Your task to perform on an android device: delete a single message in the gmail app Image 0: 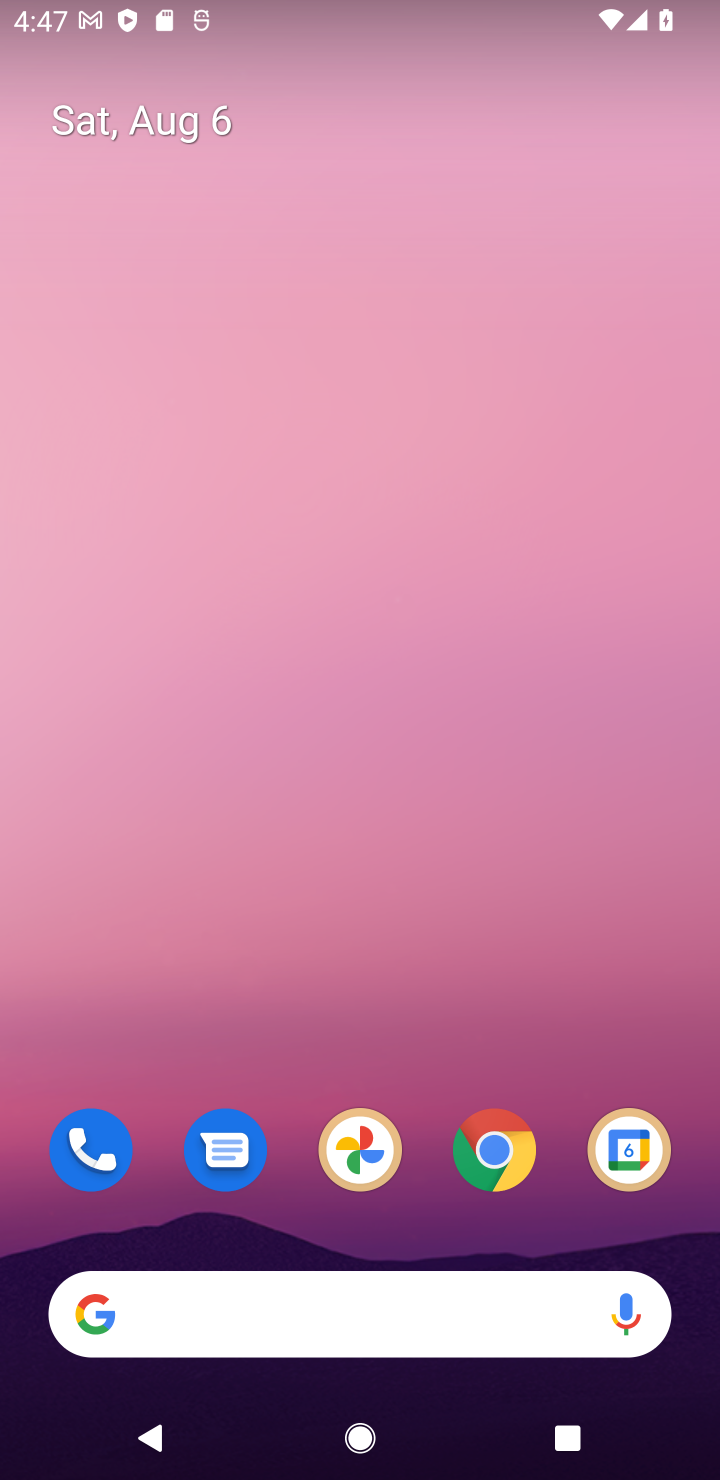
Step 0: drag from (439, 1055) to (562, 67)
Your task to perform on an android device: delete a single message in the gmail app Image 1: 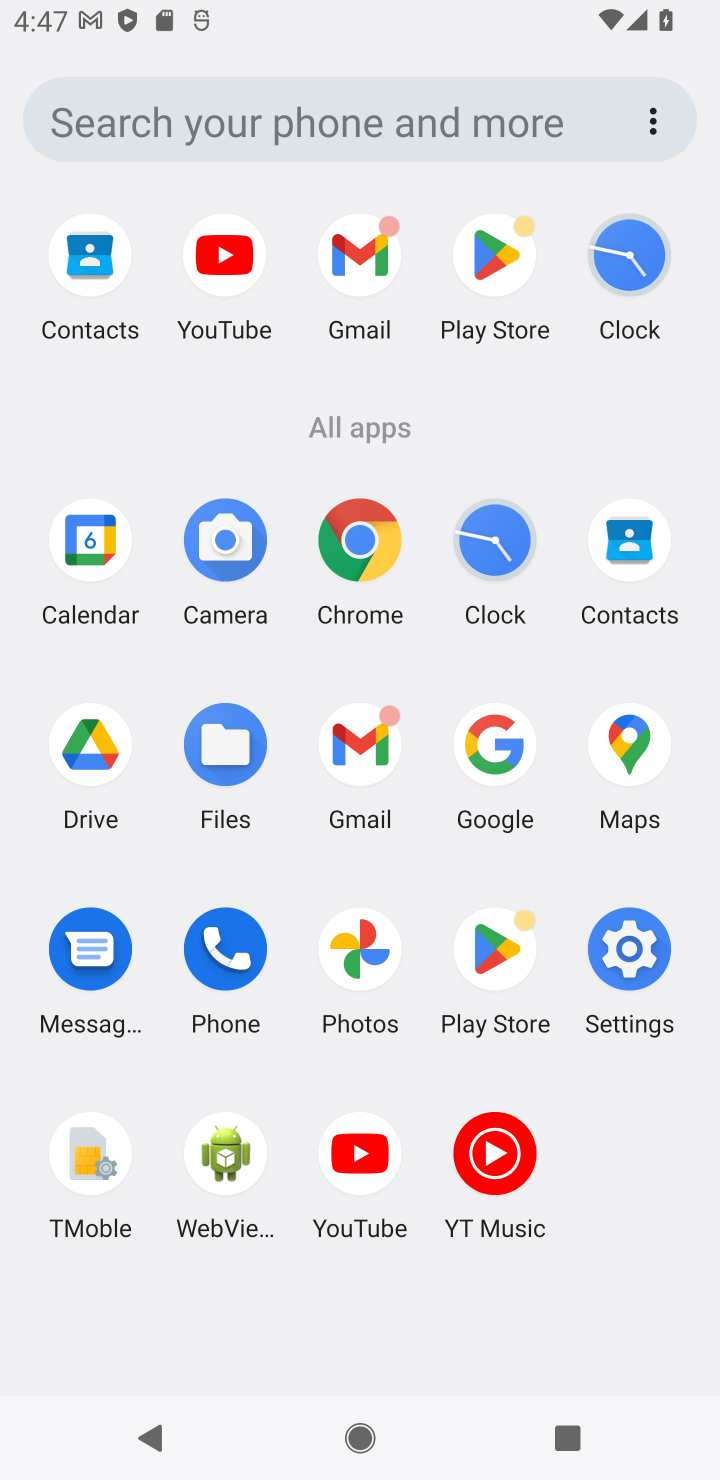
Step 1: click (350, 263)
Your task to perform on an android device: delete a single message in the gmail app Image 2: 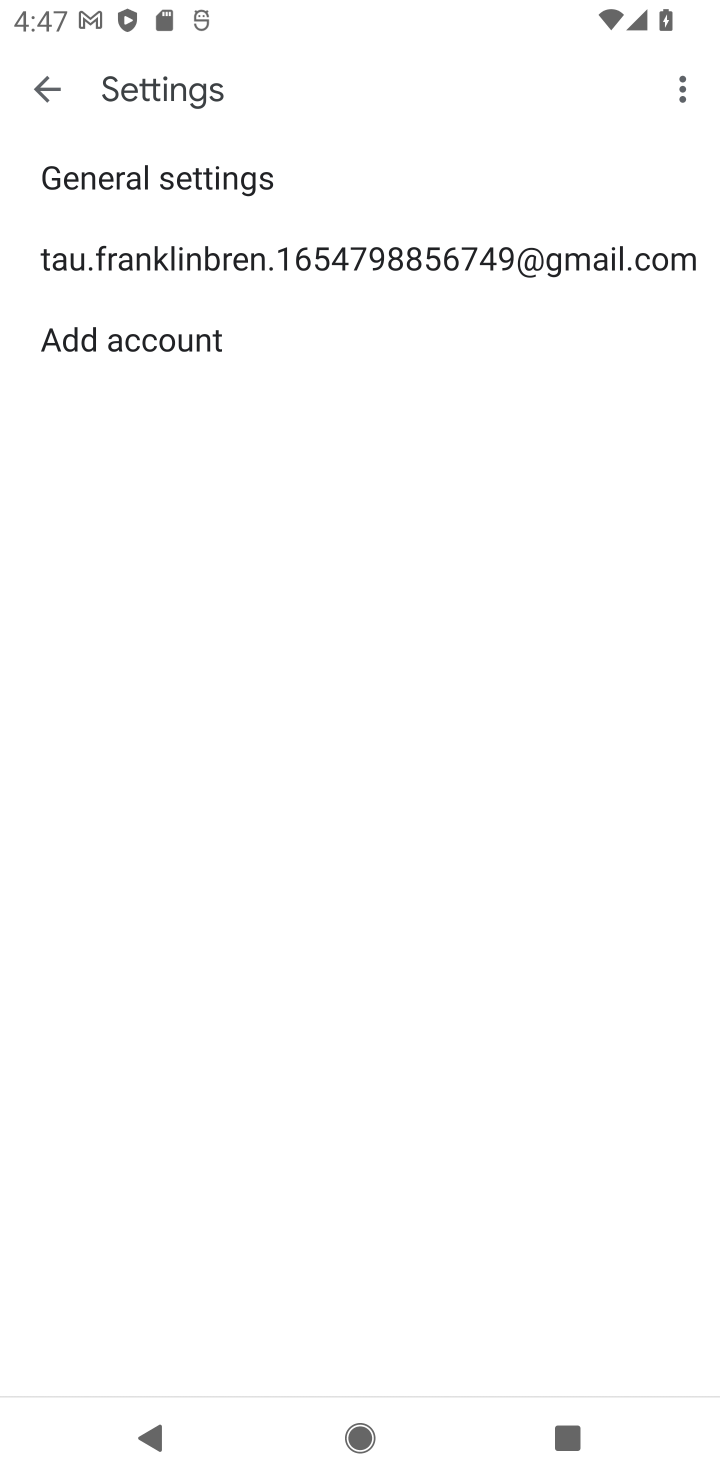
Step 2: click (46, 84)
Your task to perform on an android device: delete a single message in the gmail app Image 3: 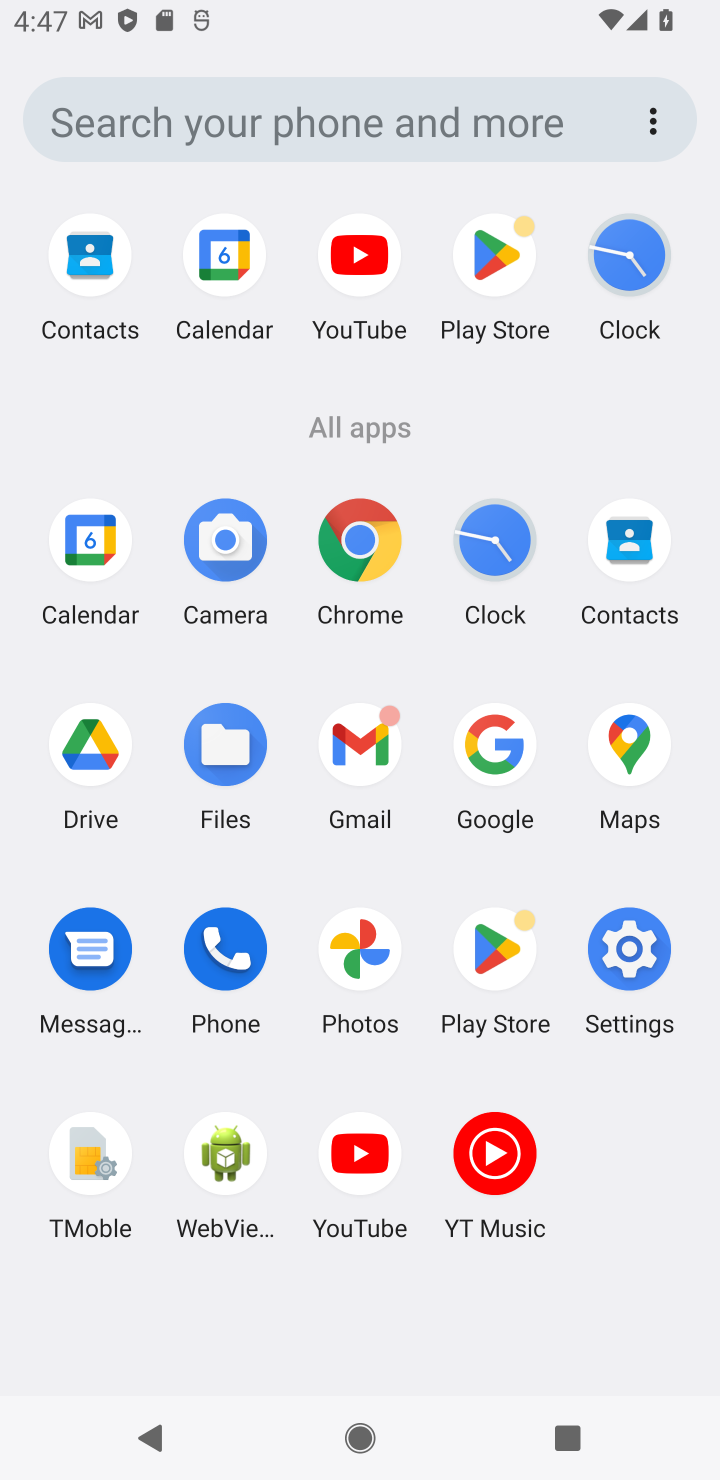
Step 3: click (350, 759)
Your task to perform on an android device: delete a single message in the gmail app Image 4: 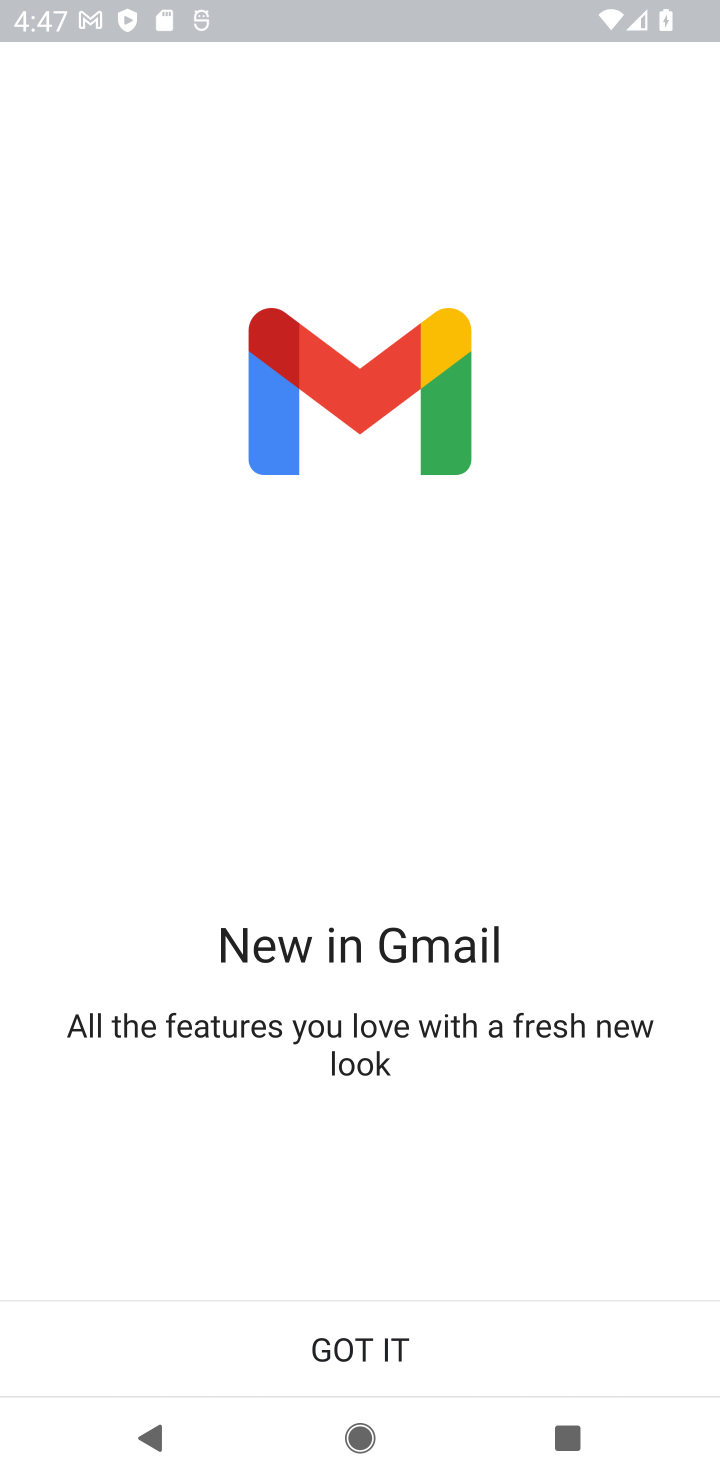
Step 4: click (325, 1334)
Your task to perform on an android device: delete a single message in the gmail app Image 5: 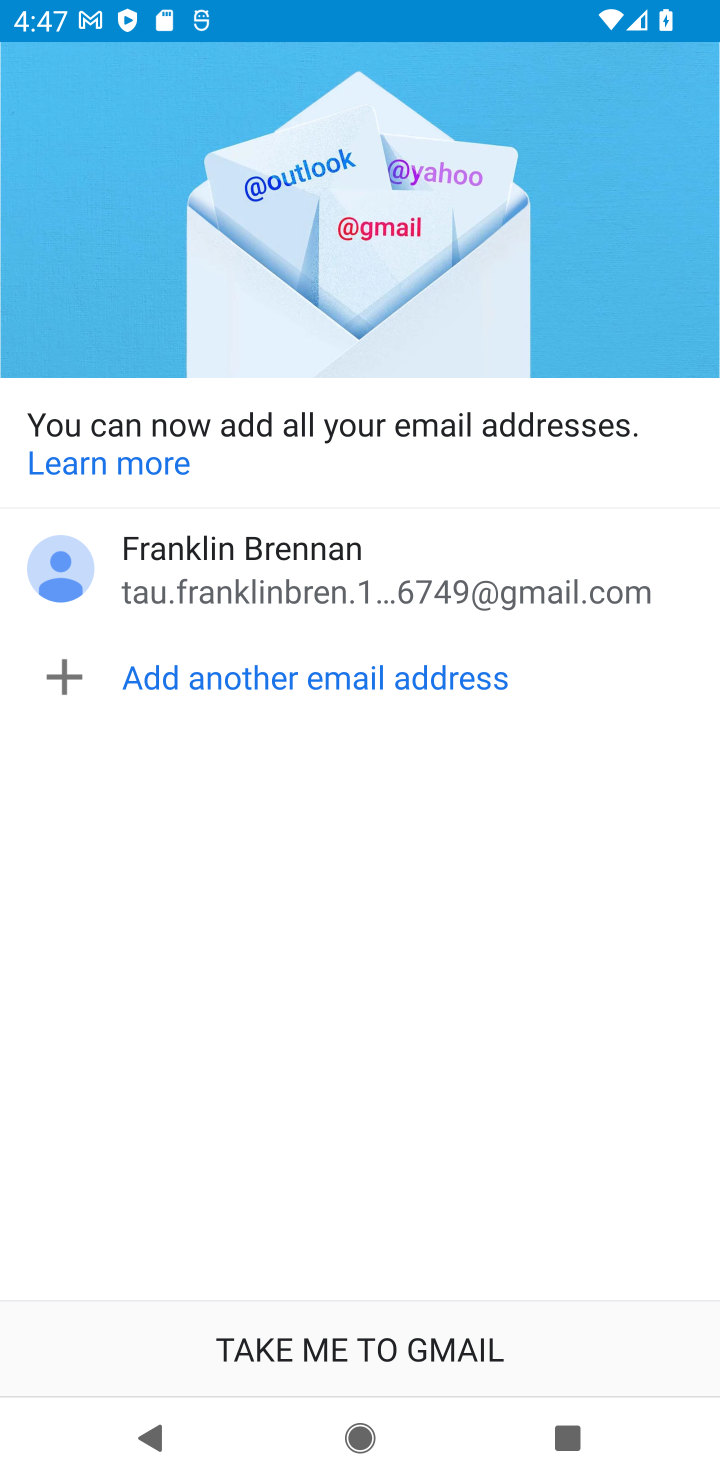
Step 5: click (325, 1334)
Your task to perform on an android device: delete a single message in the gmail app Image 6: 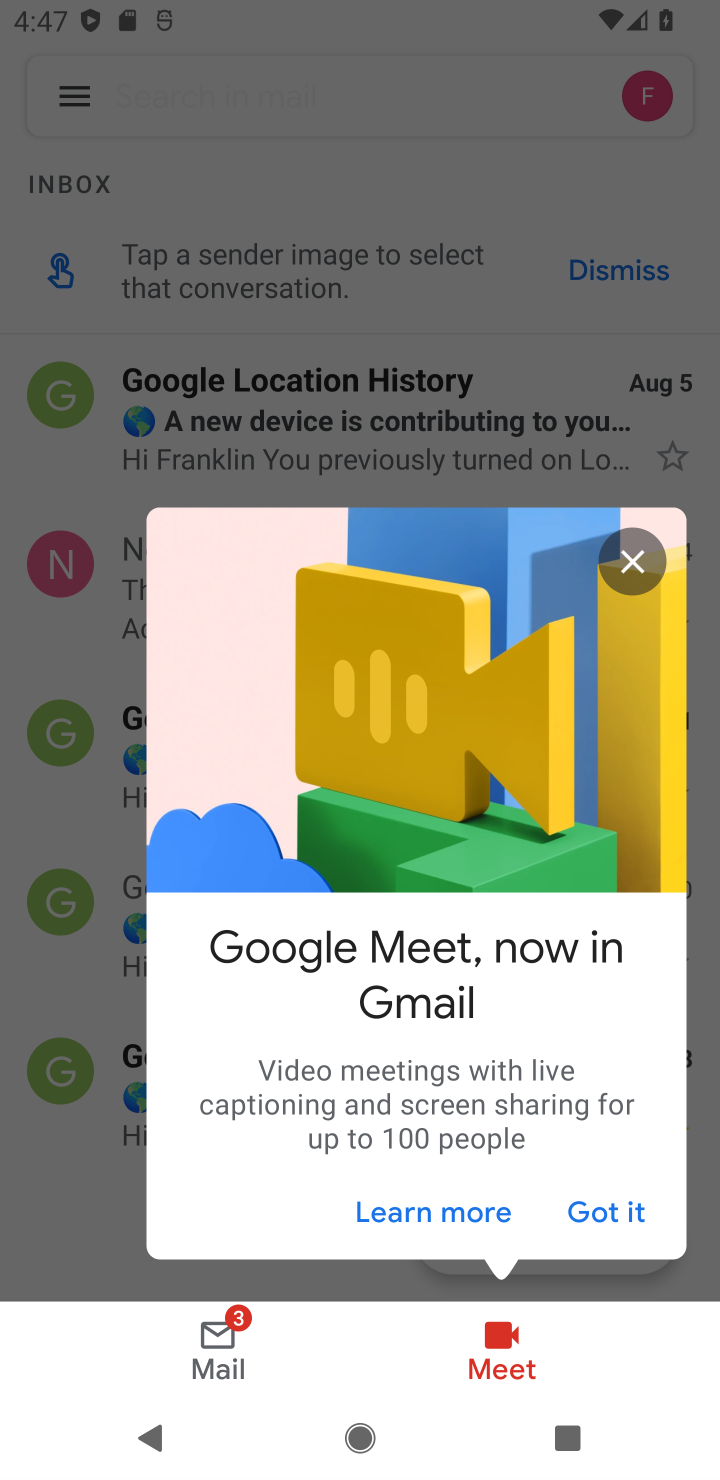
Step 6: click (593, 1216)
Your task to perform on an android device: delete a single message in the gmail app Image 7: 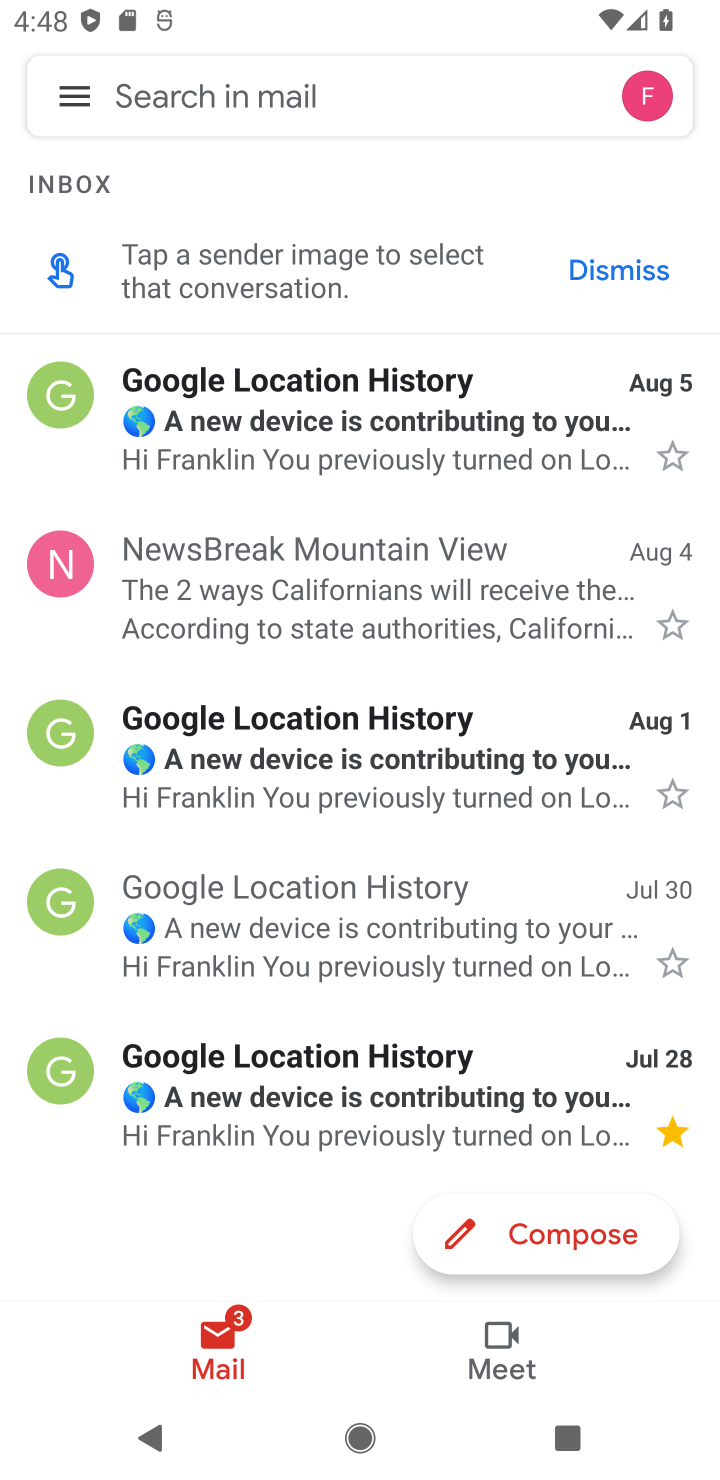
Step 7: click (74, 374)
Your task to perform on an android device: delete a single message in the gmail app Image 8: 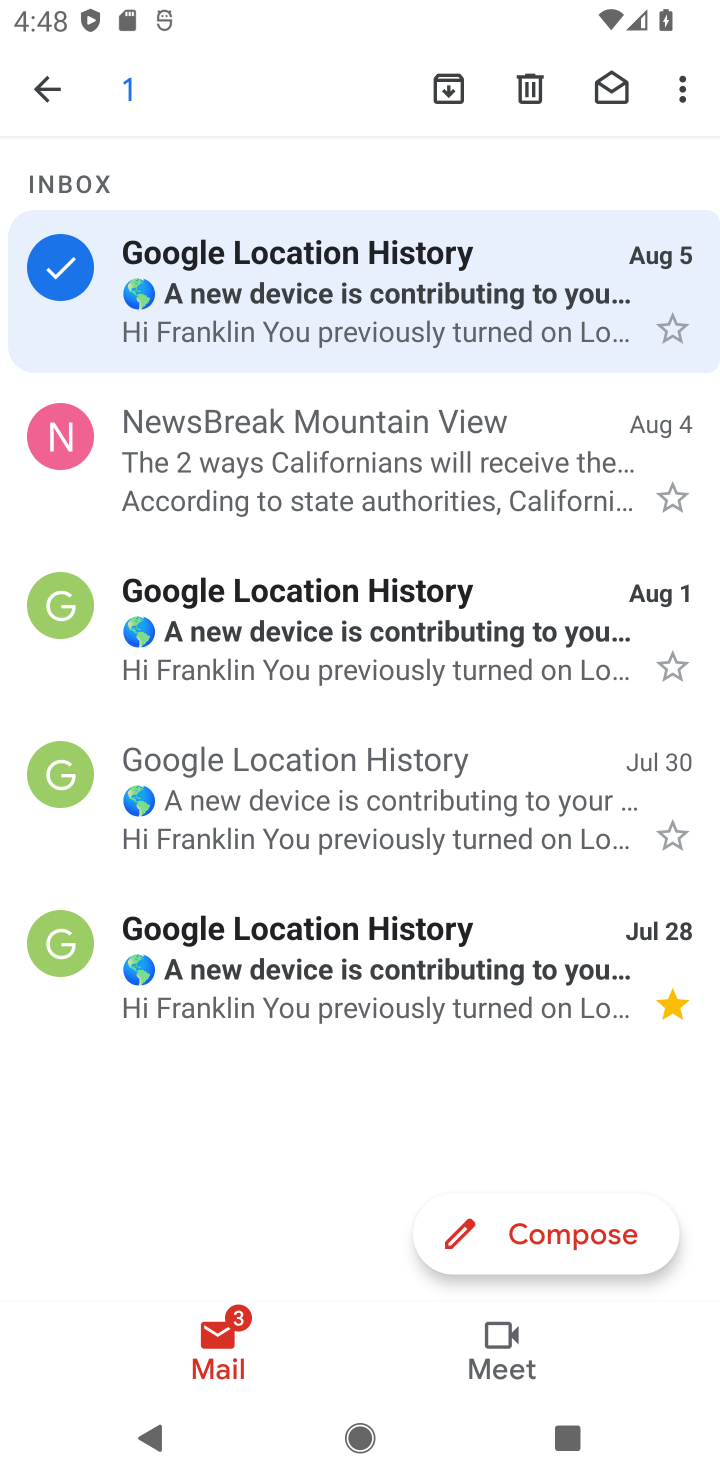
Step 8: click (541, 86)
Your task to perform on an android device: delete a single message in the gmail app Image 9: 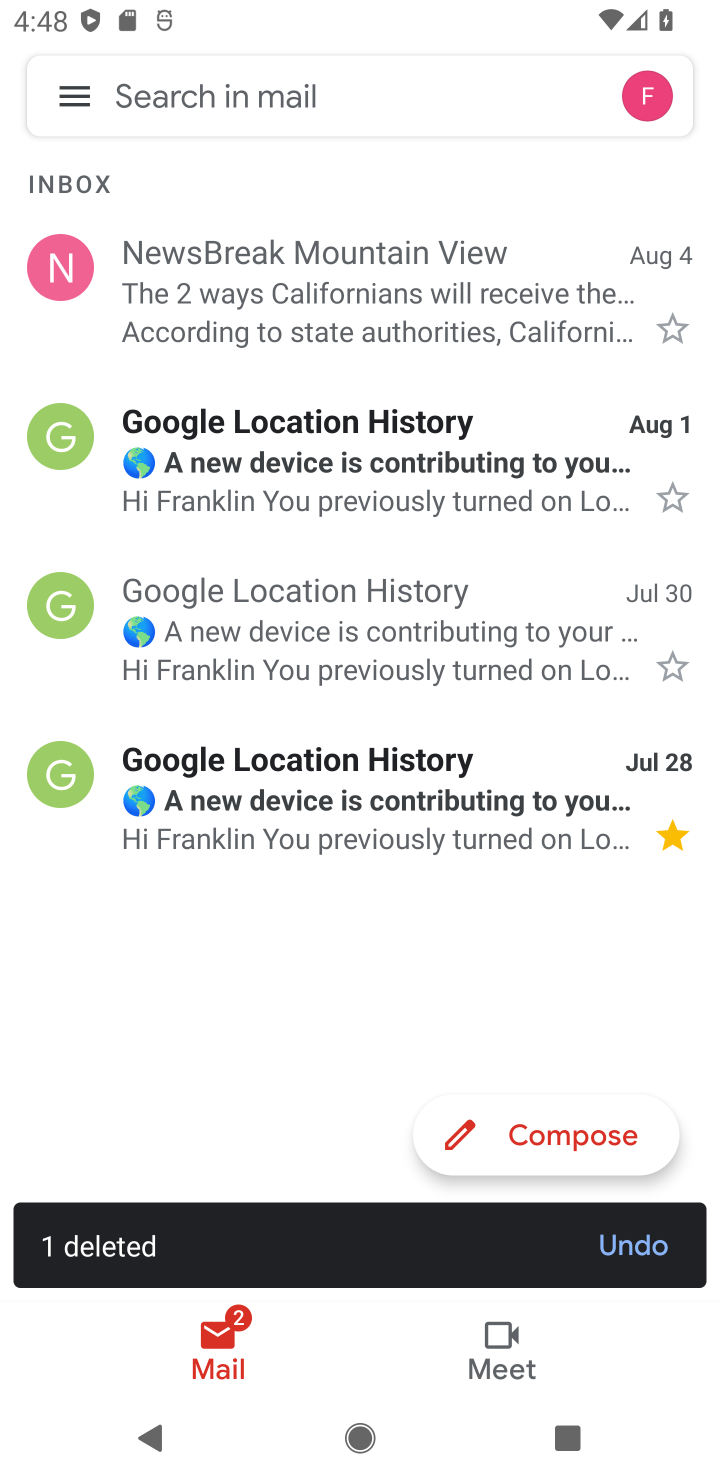
Step 9: task complete